Your task to perform on an android device: Open calendar and show me the second week of next month Image 0: 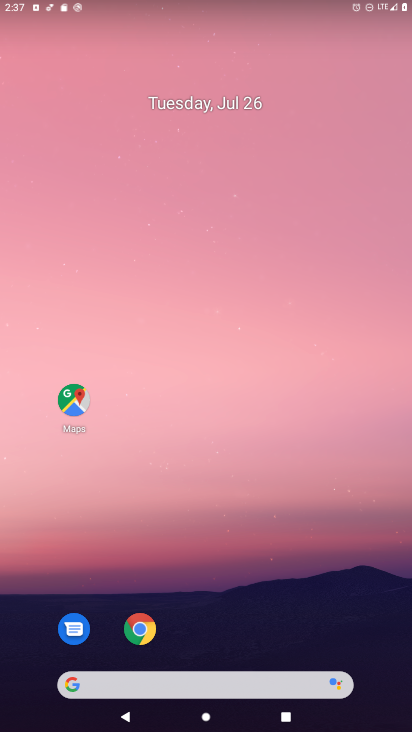
Step 0: drag from (368, 656) to (367, 220)
Your task to perform on an android device: Open calendar and show me the second week of next month Image 1: 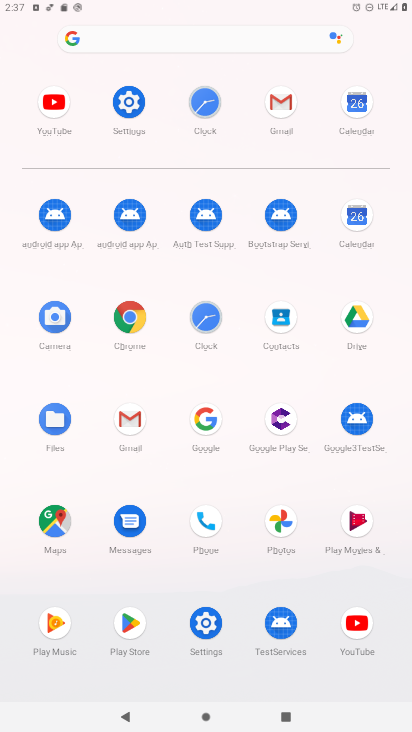
Step 1: click (359, 216)
Your task to perform on an android device: Open calendar and show me the second week of next month Image 2: 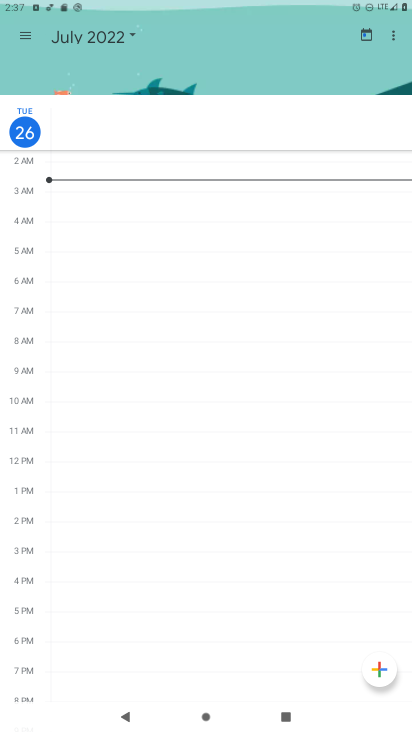
Step 2: click (29, 33)
Your task to perform on an android device: Open calendar and show me the second week of next month Image 3: 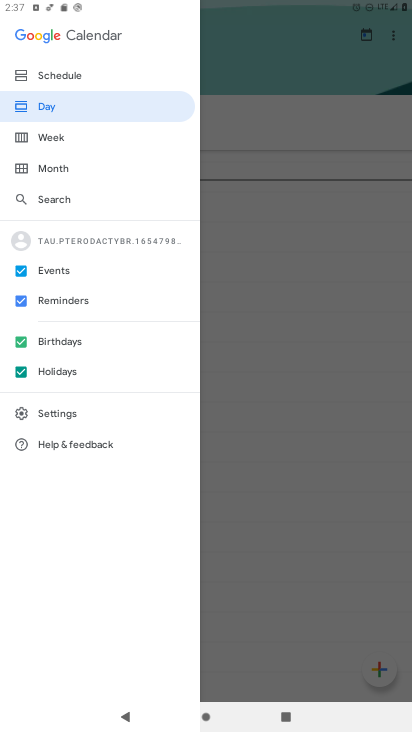
Step 3: click (46, 133)
Your task to perform on an android device: Open calendar and show me the second week of next month Image 4: 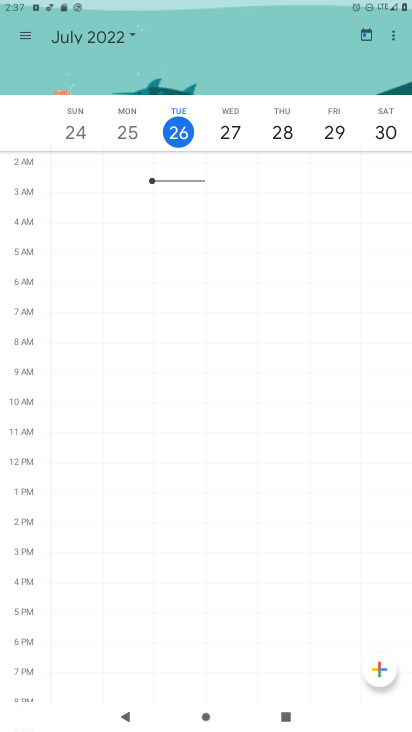
Step 4: click (129, 35)
Your task to perform on an android device: Open calendar and show me the second week of next month Image 5: 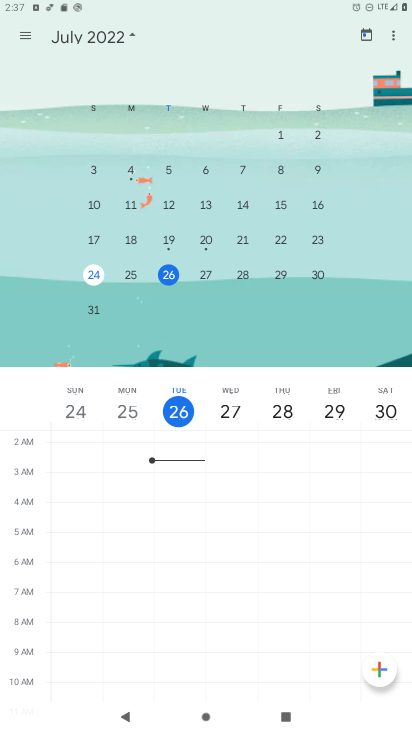
Step 5: drag from (328, 223) to (1, 256)
Your task to perform on an android device: Open calendar and show me the second week of next month Image 6: 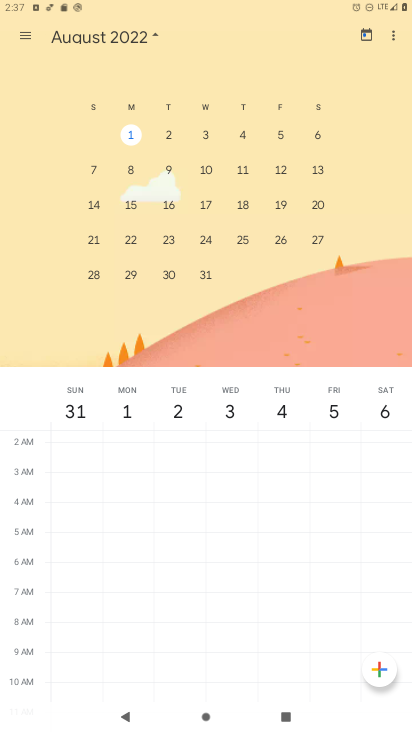
Step 6: click (86, 203)
Your task to perform on an android device: Open calendar and show me the second week of next month Image 7: 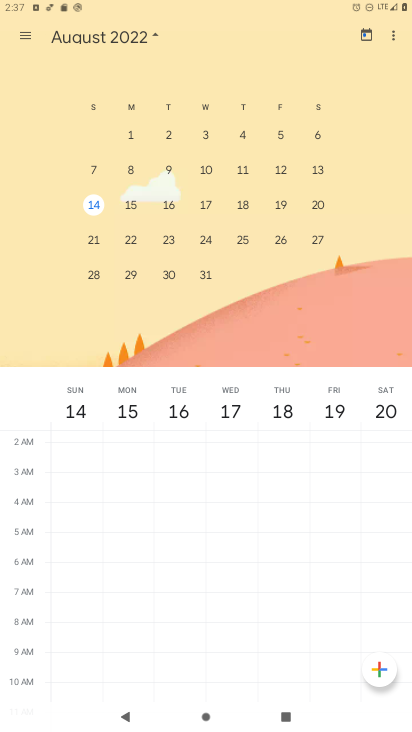
Step 7: task complete